Your task to perform on an android device: check out phone information Image 0: 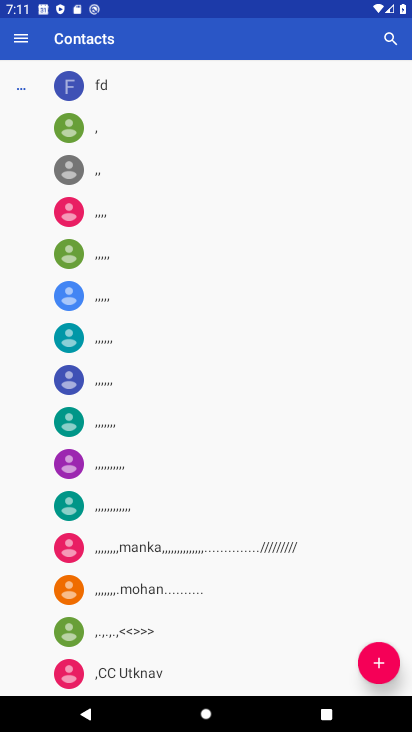
Step 0: press back button
Your task to perform on an android device: check out phone information Image 1: 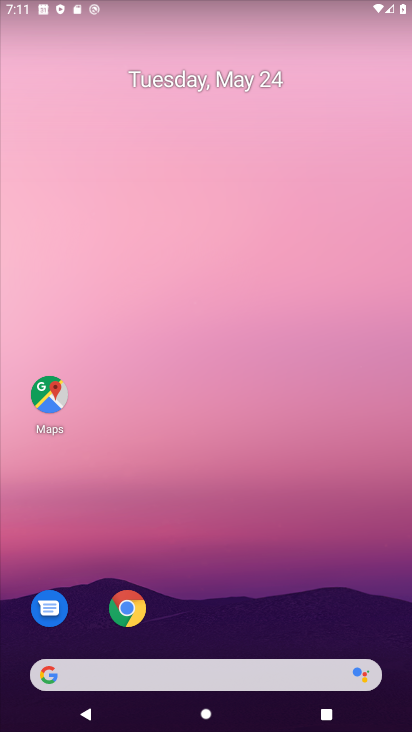
Step 1: drag from (208, 592) to (144, 202)
Your task to perform on an android device: check out phone information Image 2: 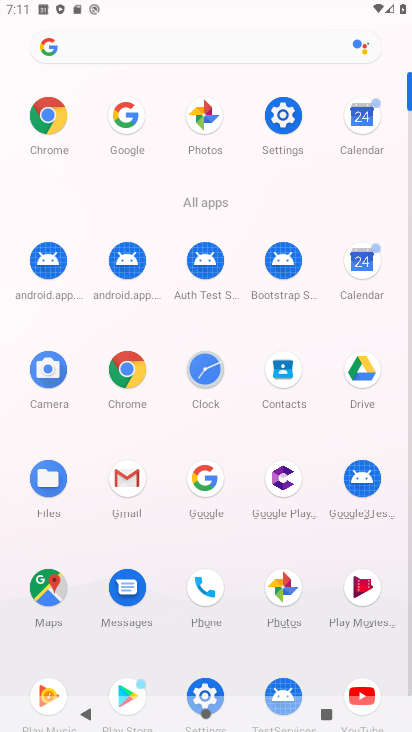
Step 2: click (286, 116)
Your task to perform on an android device: check out phone information Image 3: 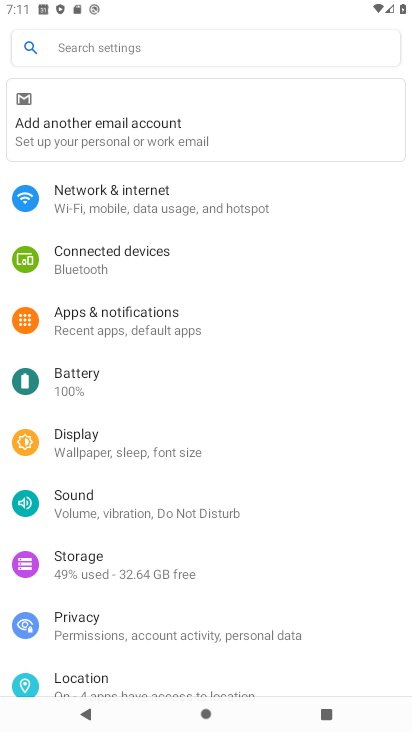
Step 3: drag from (145, 476) to (194, 382)
Your task to perform on an android device: check out phone information Image 4: 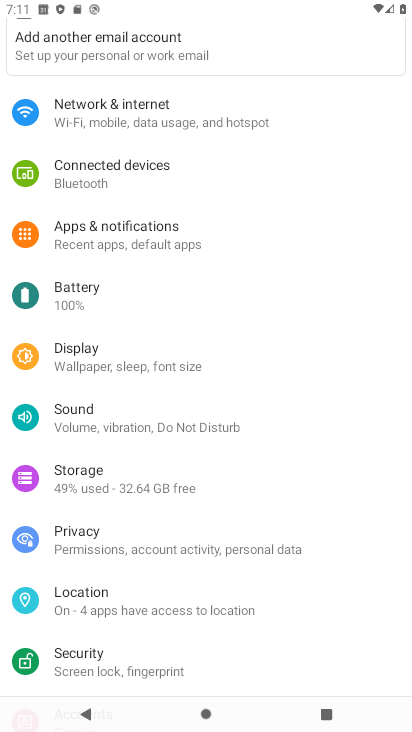
Step 4: drag from (122, 512) to (180, 420)
Your task to perform on an android device: check out phone information Image 5: 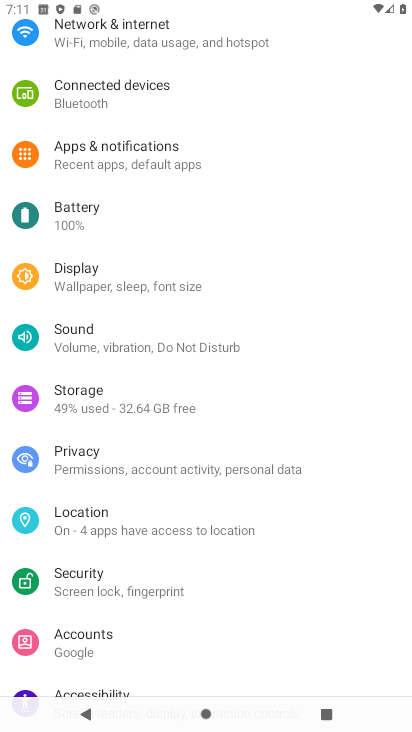
Step 5: drag from (99, 545) to (183, 438)
Your task to perform on an android device: check out phone information Image 6: 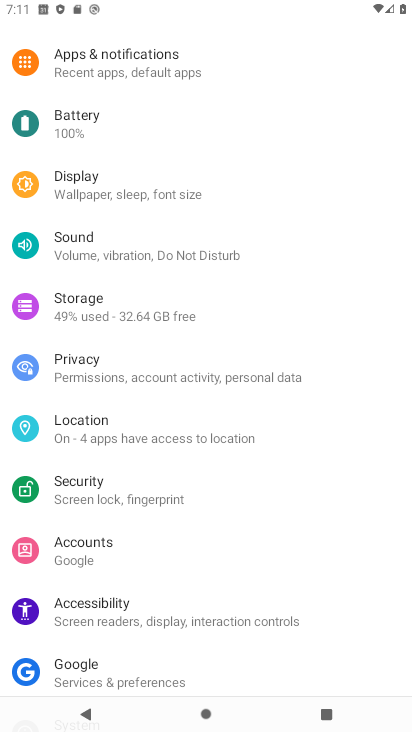
Step 6: drag from (82, 577) to (130, 467)
Your task to perform on an android device: check out phone information Image 7: 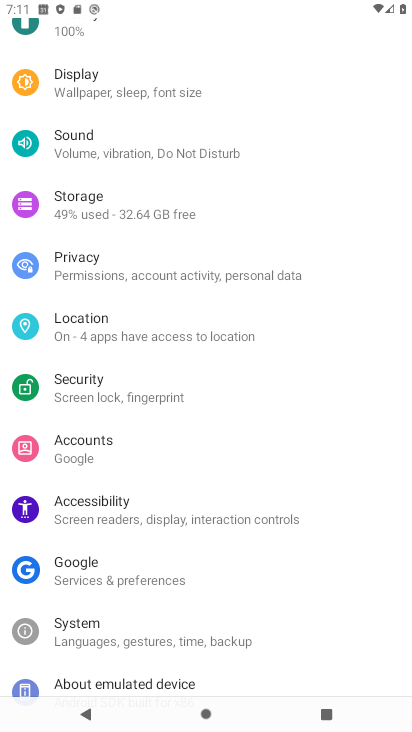
Step 7: drag from (90, 598) to (159, 499)
Your task to perform on an android device: check out phone information Image 8: 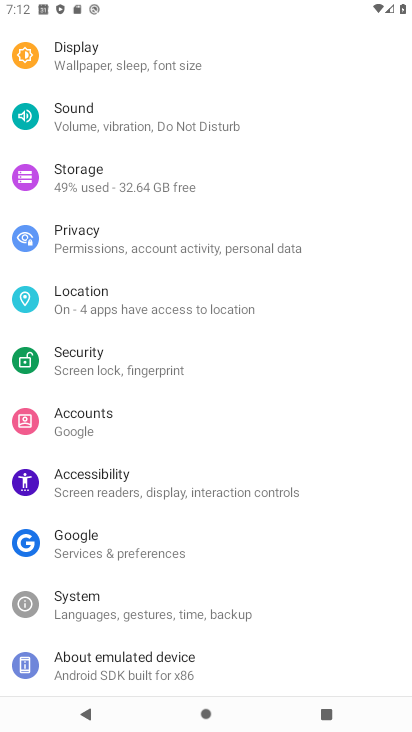
Step 8: click (101, 659)
Your task to perform on an android device: check out phone information Image 9: 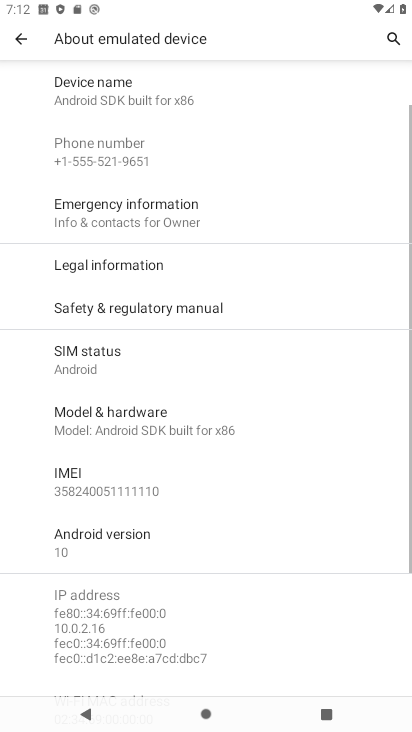
Step 9: task complete